Your task to perform on an android device: change the clock display to analog Image 0: 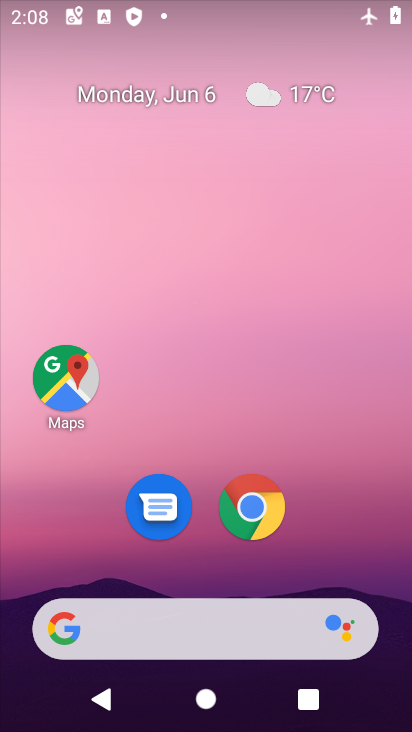
Step 0: drag from (337, 522) to (315, 11)
Your task to perform on an android device: change the clock display to analog Image 1: 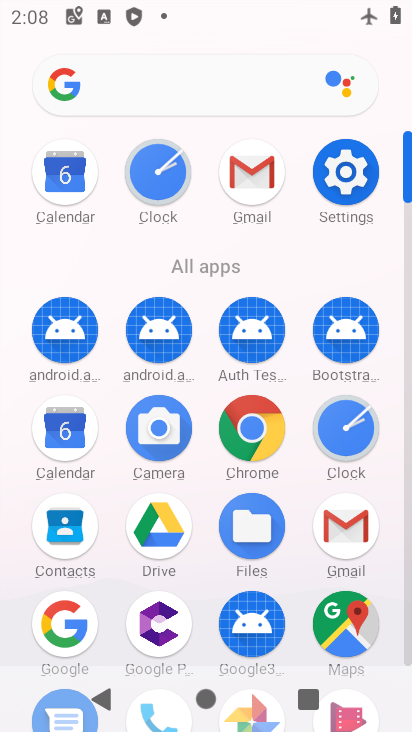
Step 1: click (160, 164)
Your task to perform on an android device: change the clock display to analog Image 2: 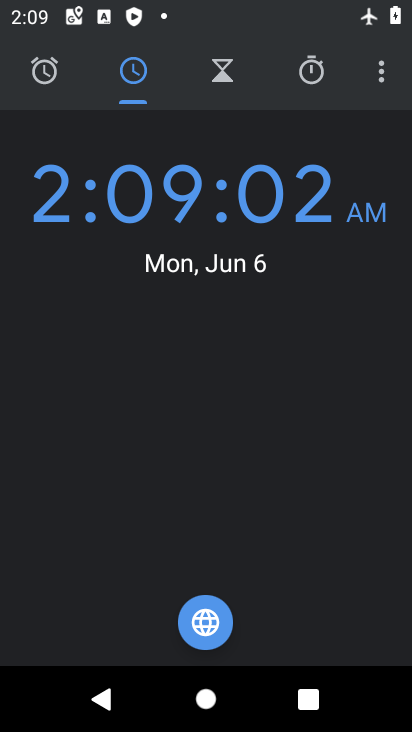
Step 2: click (382, 79)
Your task to perform on an android device: change the clock display to analog Image 3: 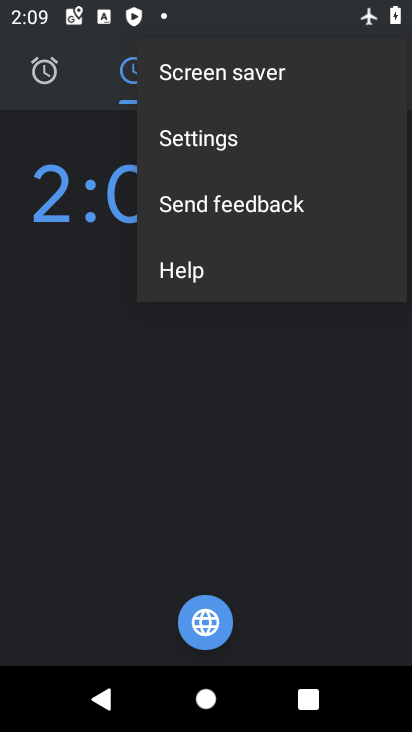
Step 3: click (269, 147)
Your task to perform on an android device: change the clock display to analog Image 4: 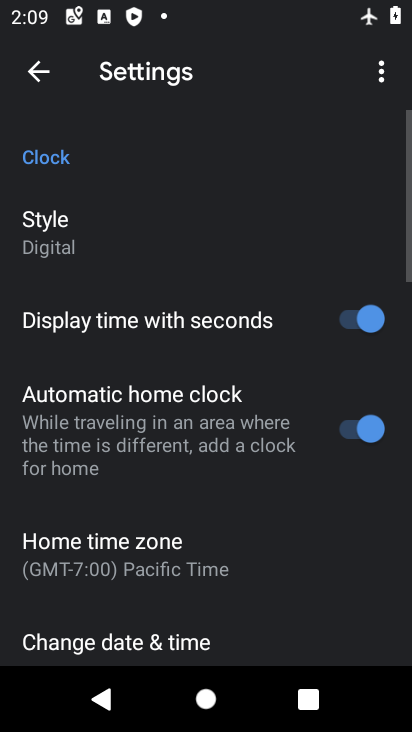
Step 4: click (91, 245)
Your task to perform on an android device: change the clock display to analog Image 5: 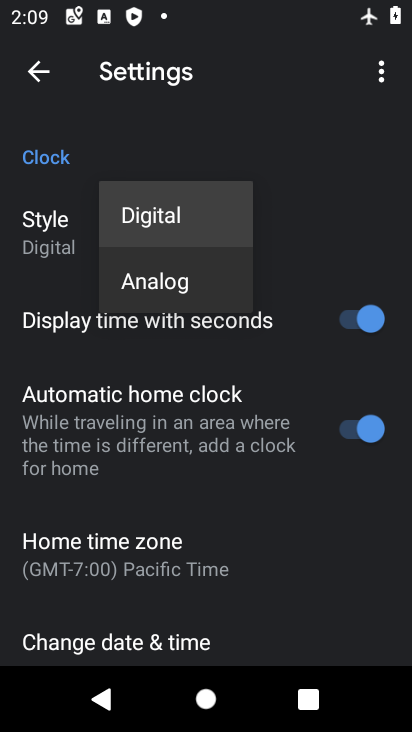
Step 5: click (117, 288)
Your task to perform on an android device: change the clock display to analog Image 6: 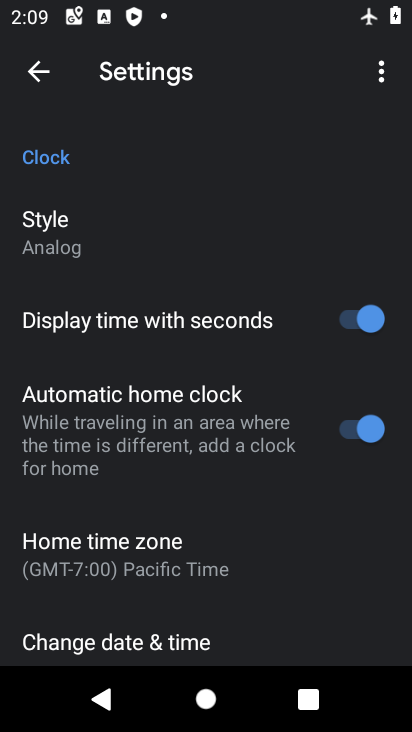
Step 6: click (49, 75)
Your task to perform on an android device: change the clock display to analog Image 7: 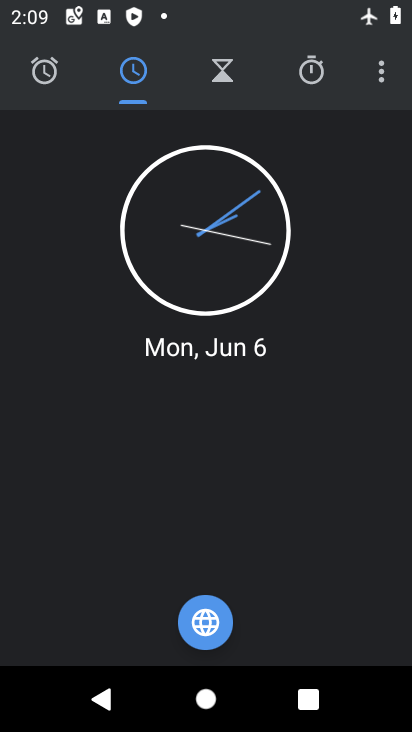
Step 7: task complete